Your task to perform on an android device: Go to Google maps Image 0: 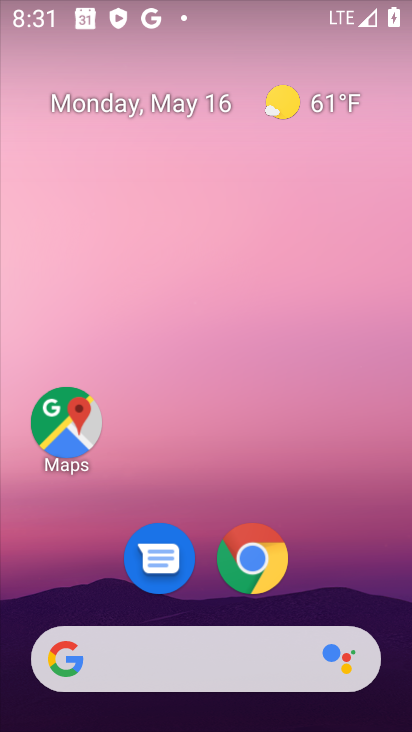
Step 0: click (58, 444)
Your task to perform on an android device: Go to Google maps Image 1: 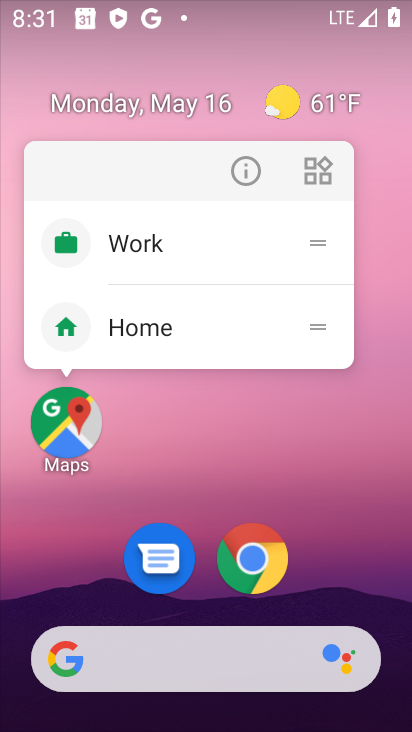
Step 1: click (74, 422)
Your task to perform on an android device: Go to Google maps Image 2: 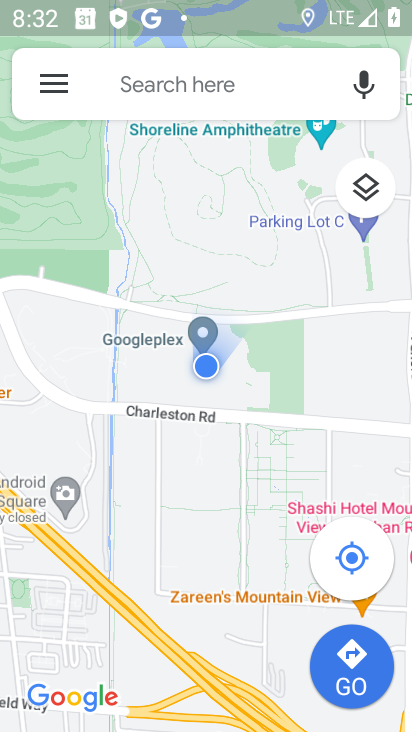
Step 2: task complete